Your task to perform on an android device: star an email in the gmail app Image 0: 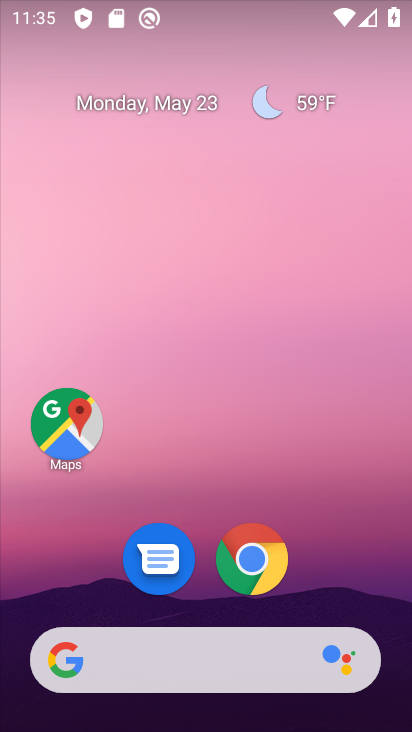
Step 0: drag from (396, 677) to (321, 191)
Your task to perform on an android device: star an email in the gmail app Image 1: 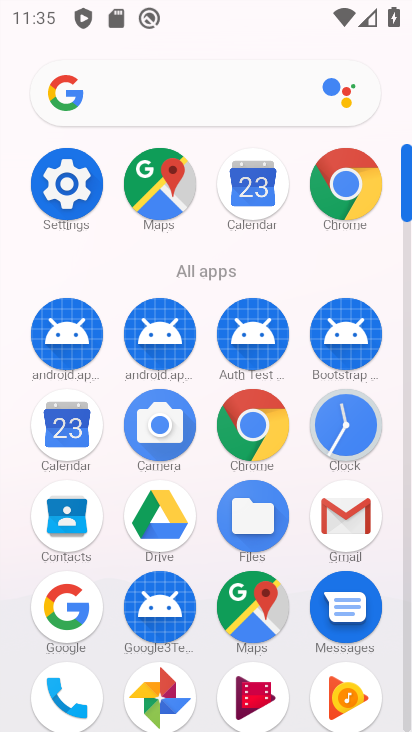
Step 1: click (355, 513)
Your task to perform on an android device: star an email in the gmail app Image 2: 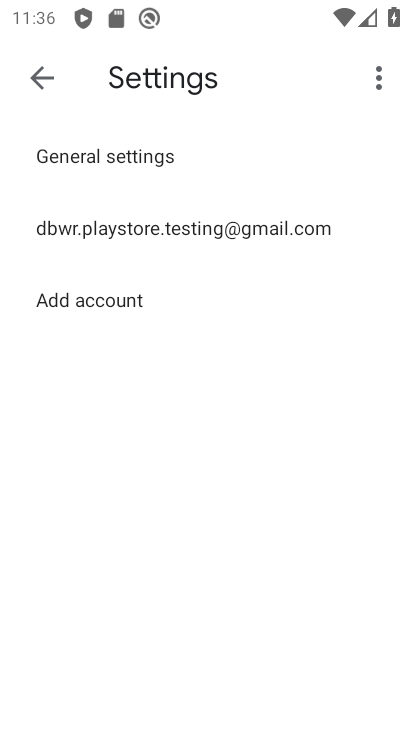
Step 2: click (28, 69)
Your task to perform on an android device: star an email in the gmail app Image 3: 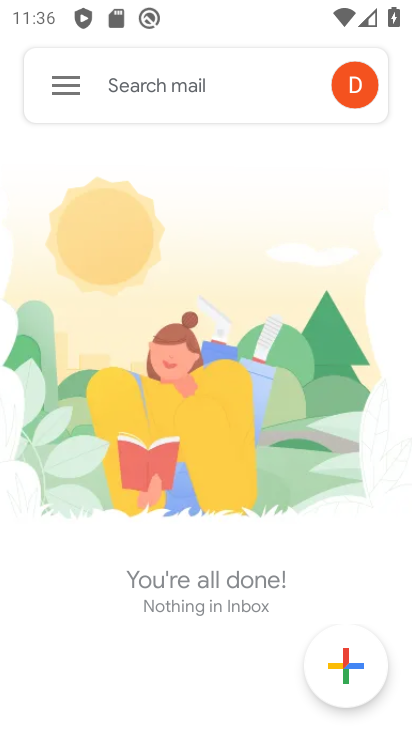
Step 3: click (66, 84)
Your task to perform on an android device: star an email in the gmail app Image 4: 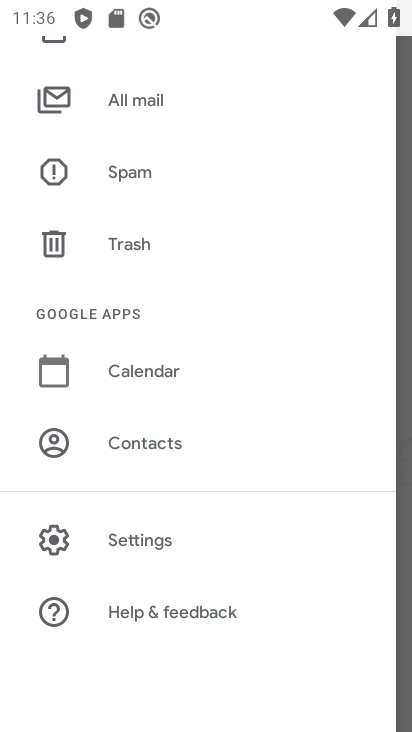
Step 4: drag from (266, 127) to (262, 678)
Your task to perform on an android device: star an email in the gmail app Image 5: 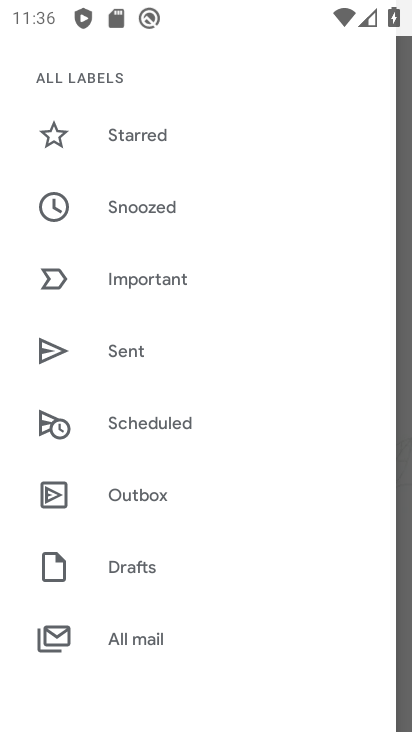
Step 5: drag from (309, 277) to (313, 515)
Your task to perform on an android device: star an email in the gmail app Image 6: 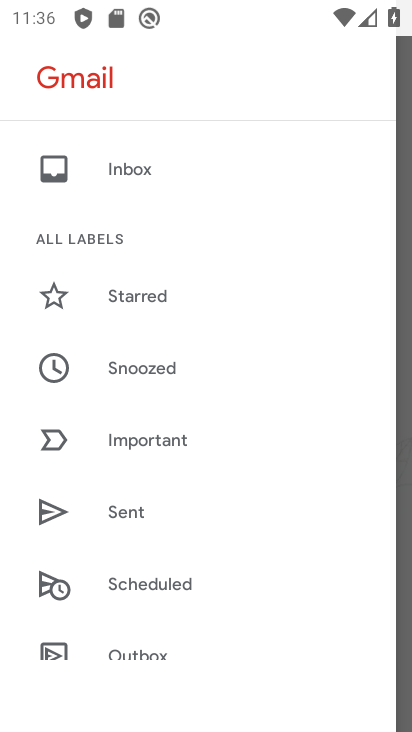
Step 6: click (140, 165)
Your task to perform on an android device: star an email in the gmail app Image 7: 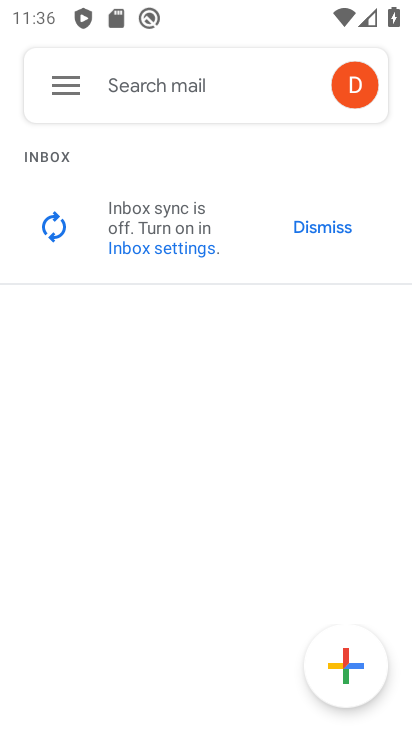
Step 7: task complete